Your task to perform on an android device: Open notification settings Image 0: 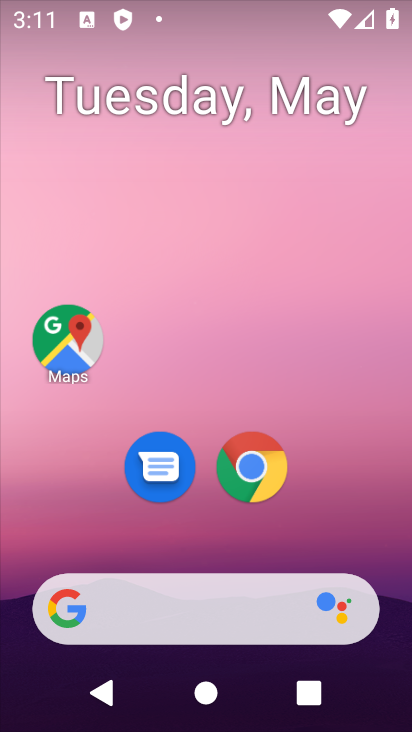
Step 0: task complete